Your task to perform on an android device: open app "Life360: Find Family & Friends" (install if not already installed) Image 0: 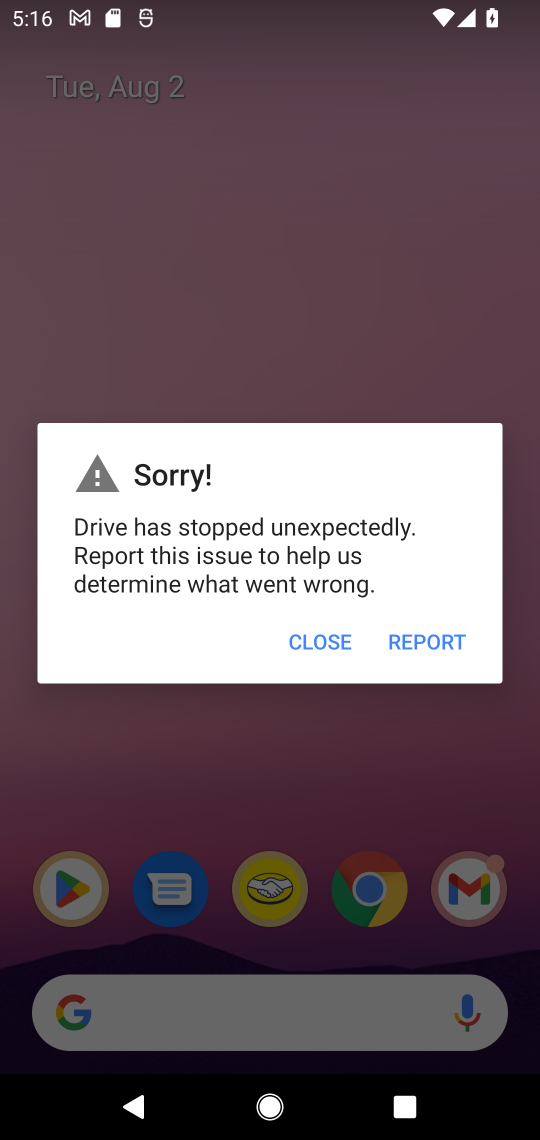
Step 0: press home button
Your task to perform on an android device: open app "Life360: Find Family & Friends" (install if not already installed) Image 1: 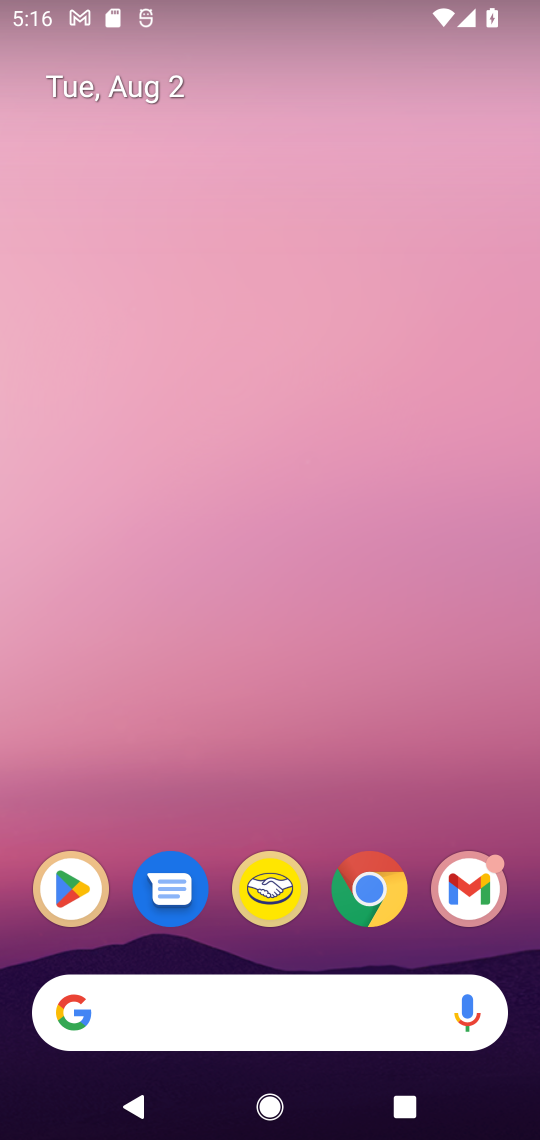
Step 1: drag from (410, 769) to (383, 84)
Your task to perform on an android device: open app "Life360: Find Family & Friends" (install if not already installed) Image 2: 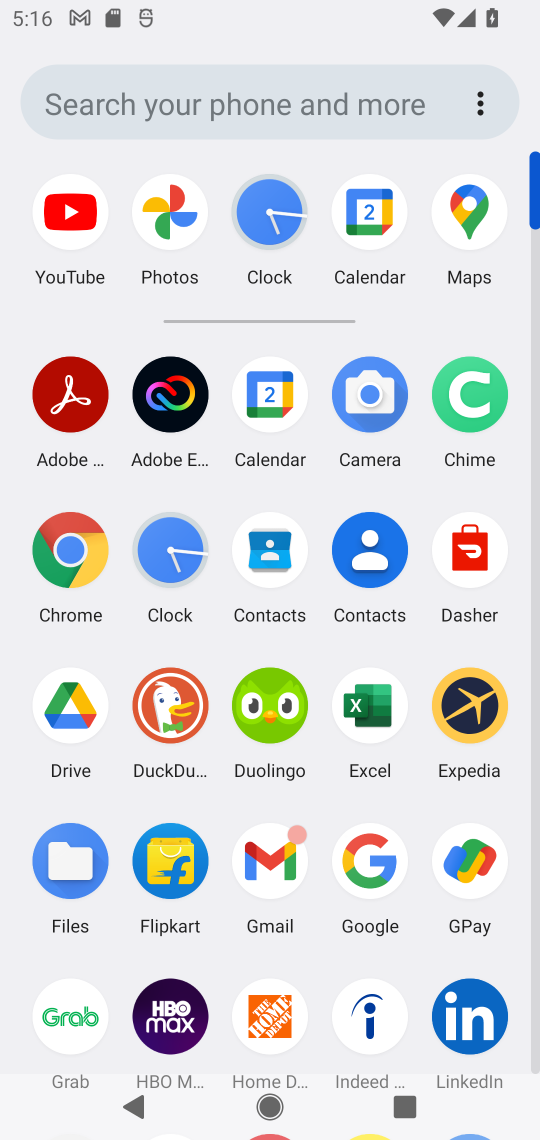
Step 2: drag from (499, 958) to (498, 640)
Your task to perform on an android device: open app "Life360: Find Family & Friends" (install if not already installed) Image 3: 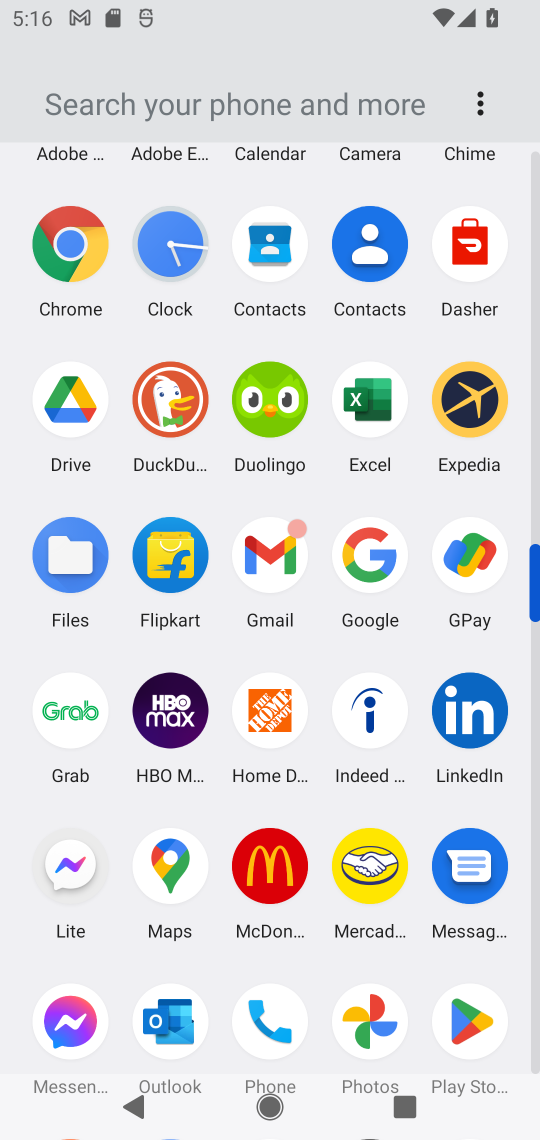
Step 3: click (481, 1023)
Your task to perform on an android device: open app "Life360: Find Family & Friends" (install if not already installed) Image 4: 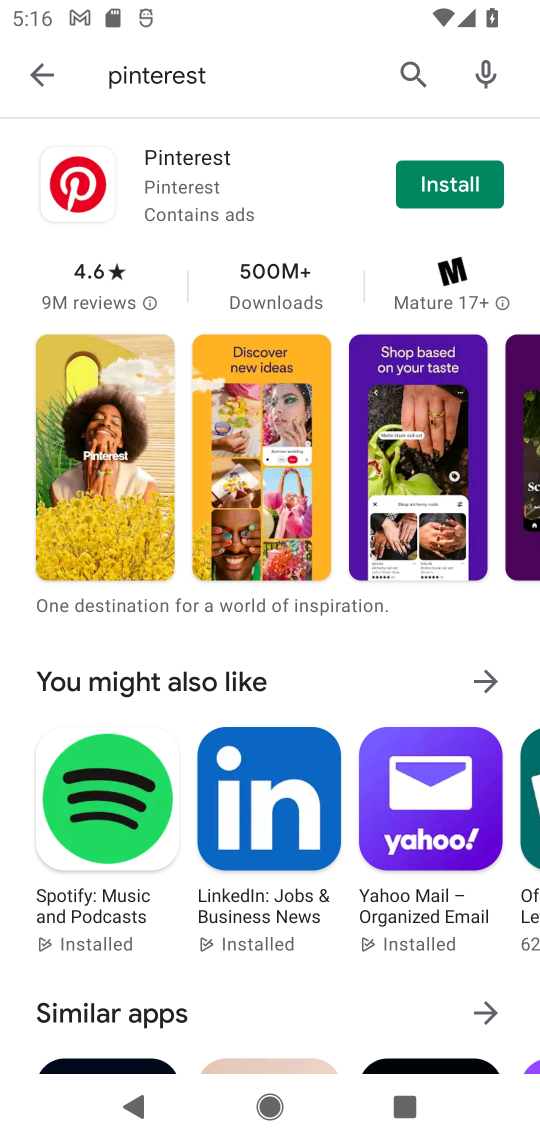
Step 4: click (410, 77)
Your task to perform on an android device: open app "Life360: Find Family & Friends" (install if not already installed) Image 5: 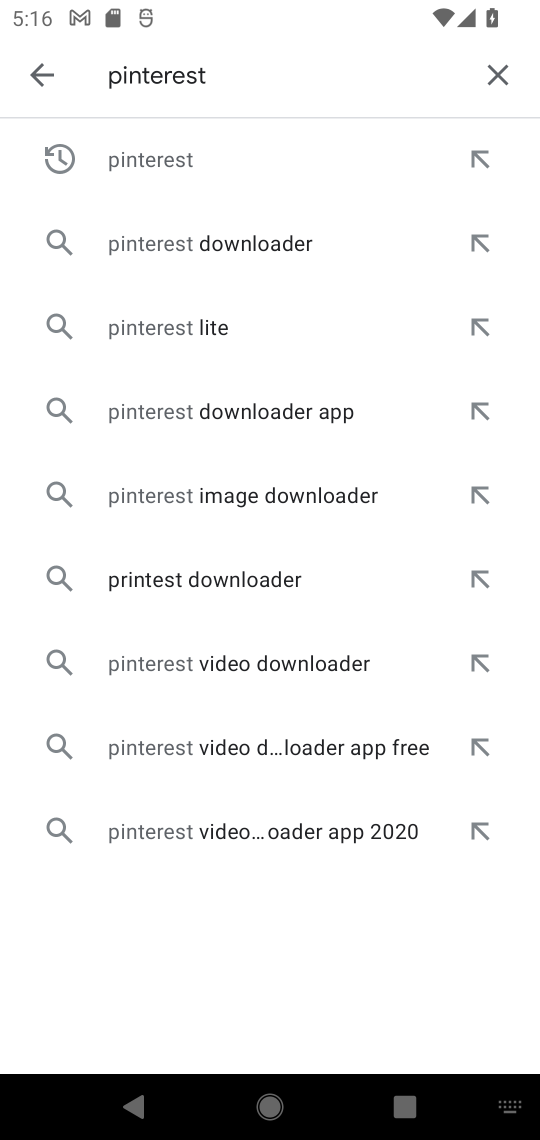
Step 5: click (491, 62)
Your task to perform on an android device: open app "Life360: Find Family & Friends" (install if not already installed) Image 6: 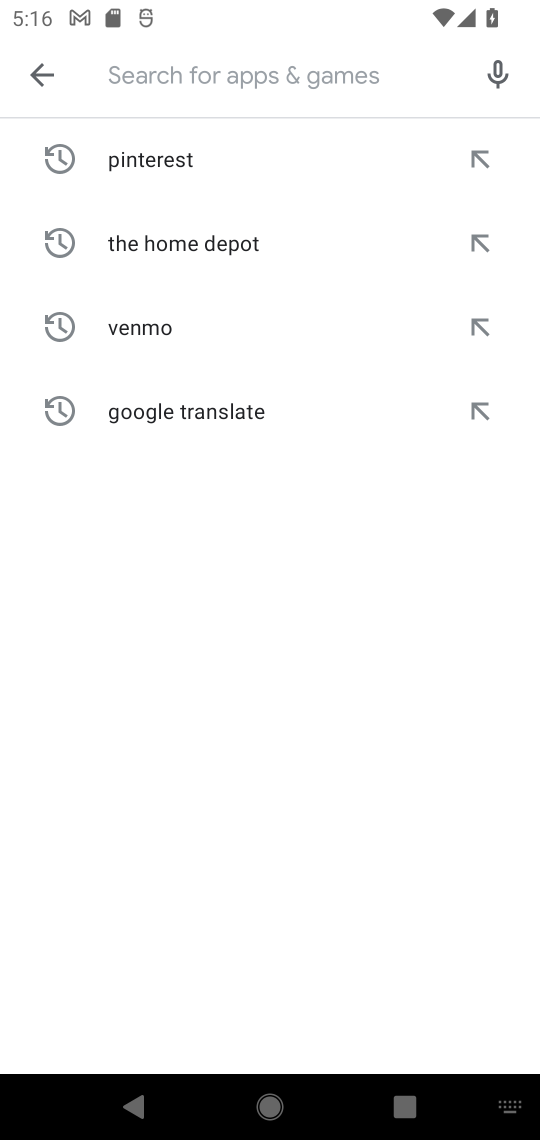
Step 6: type "Life360: Find Family & Friends"
Your task to perform on an android device: open app "Life360: Find Family & Friends" (install if not already installed) Image 7: 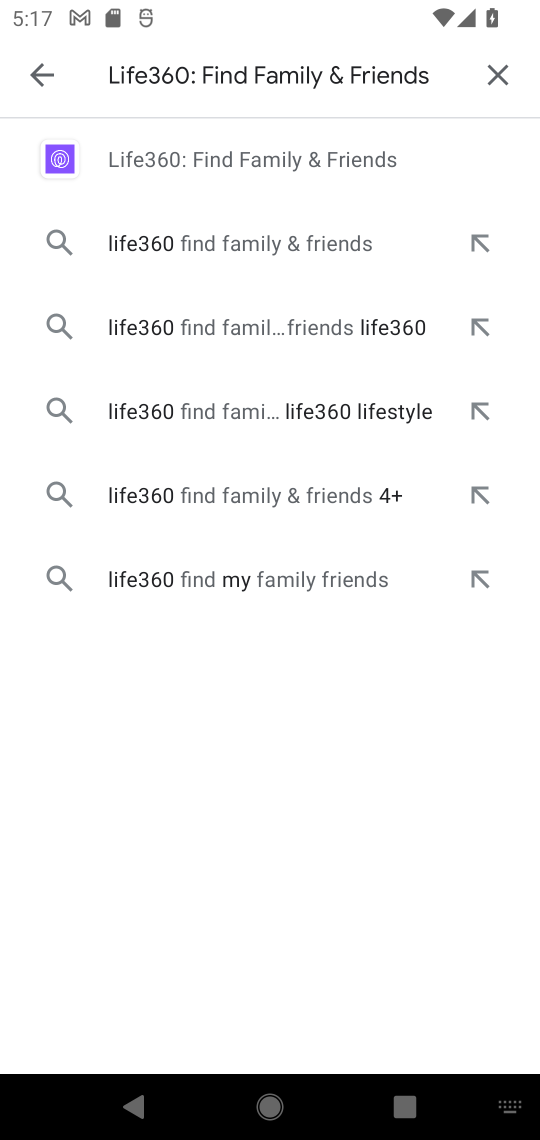
Step 7: click (264, 146)
Your task to perform on an android device: open app "Life360: Find Family & Friends" (install if not already installed) Image 8: 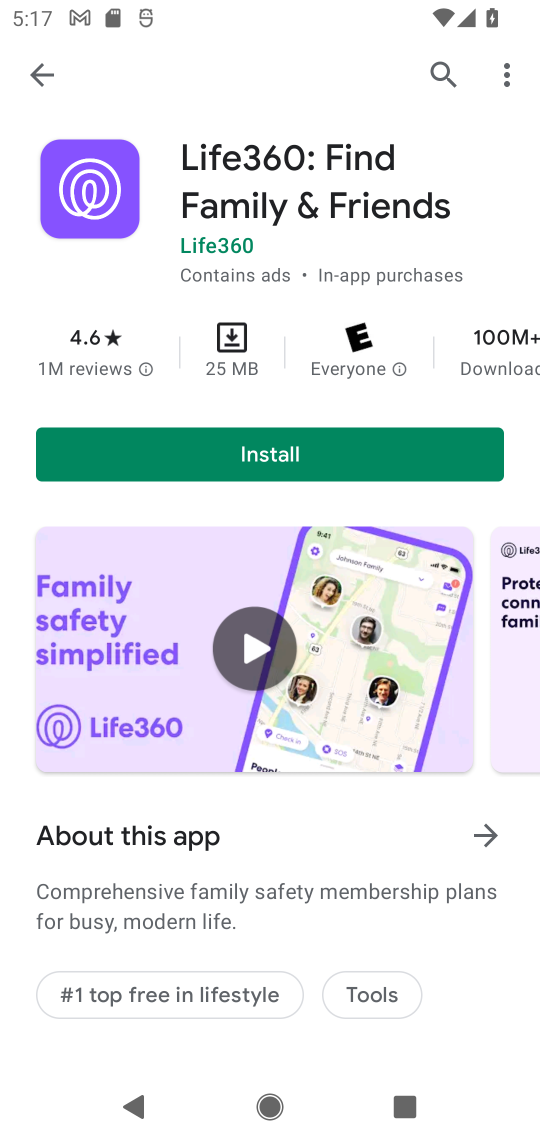
Step 8: click (367, 462)
Your task to perform on an android device: open app "Life360: Find Family & Friends" (install if not already installed) Image 9: 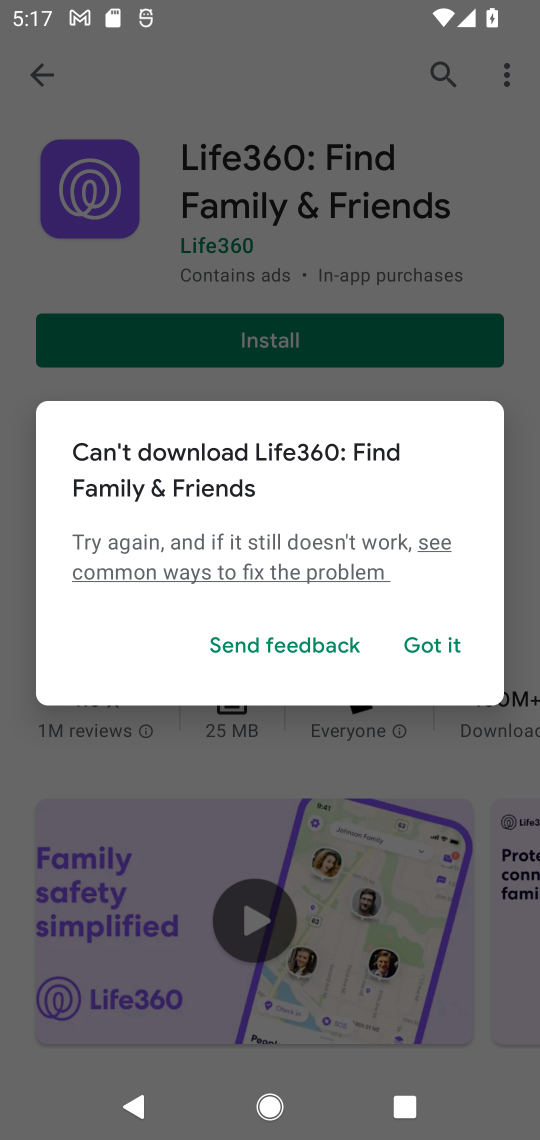
Step 9: click (420, 642)
Your task to perform on an android device: open app "Life360: Find Family & Friends" (install if not already installed) Image 10: 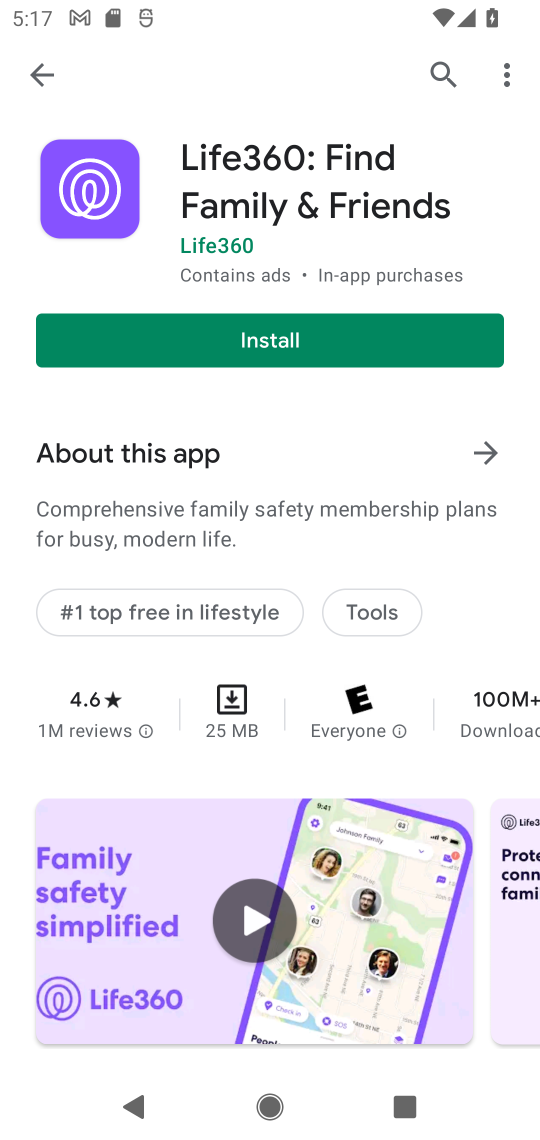
Step 10: click (317, 342)
Your task to perform on an android device: open app "Life360: Find Family & Friends" (install if not already installed) Image 11: 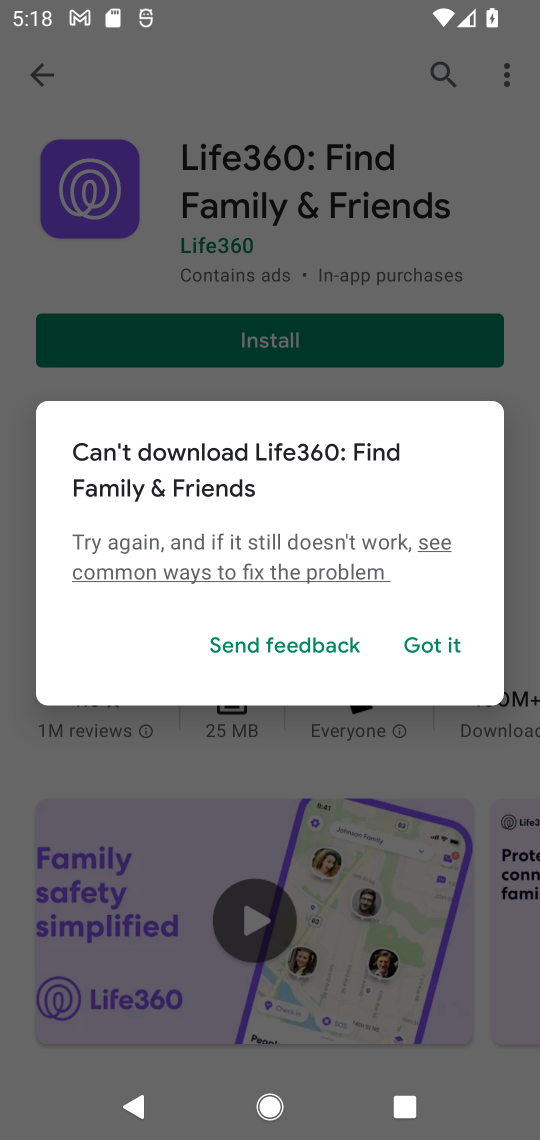
Step 11: click (435, 644)
Your task to perform on an android device: open app "Life360: Find Family & Friends" (install if not already installed) Image 12: 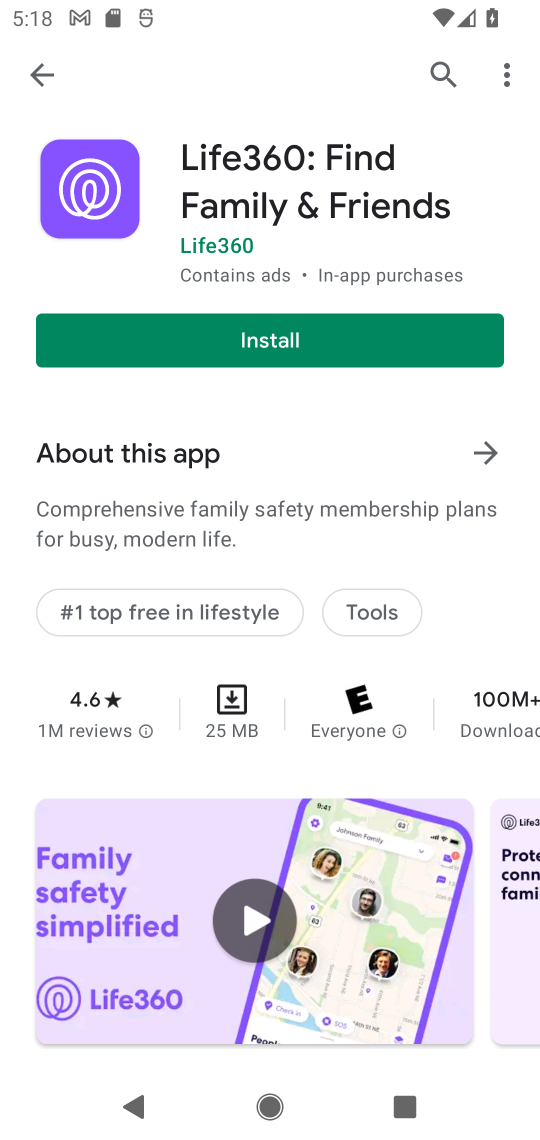
Step 12: task complete